Your task to perform on an android device: Open the calendar and show me this week's events Image 0: 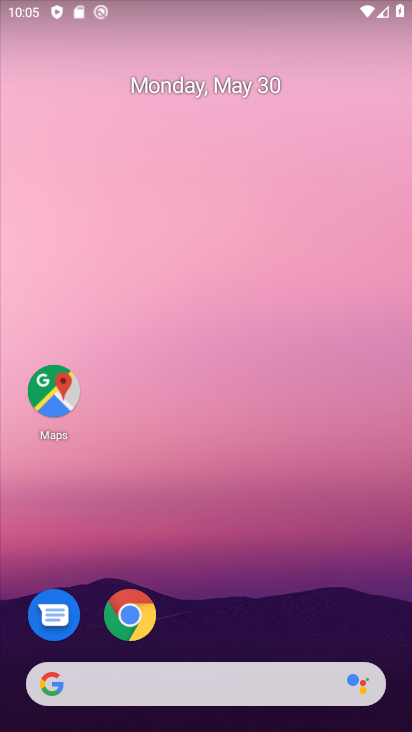
Step 0: drag from (198, 728) to (203, 126)
Your task to perform on an android device: Open the calendar and show me this week's events Image 1: 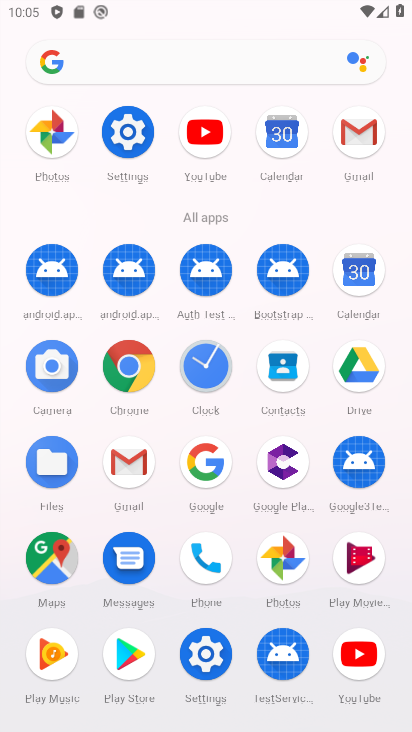
Step 1: click (364, 274)
Your task to perform on an android device: Open the calendar and show me this week's events Image 2: 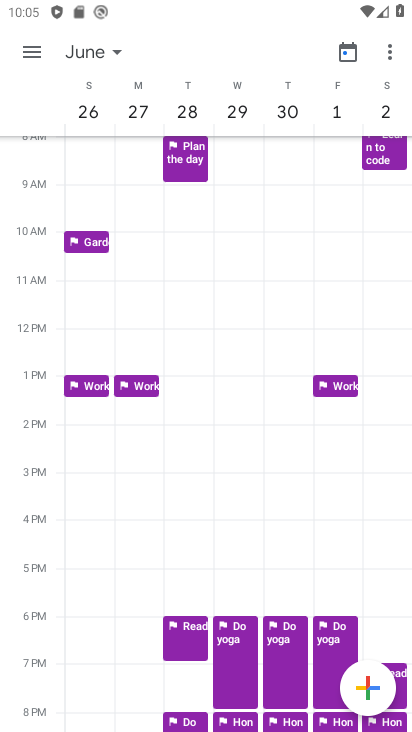
Step 2: click (108, 57)
Your task to perform on an android device: Open the calendar and show me this week's events Image 3: 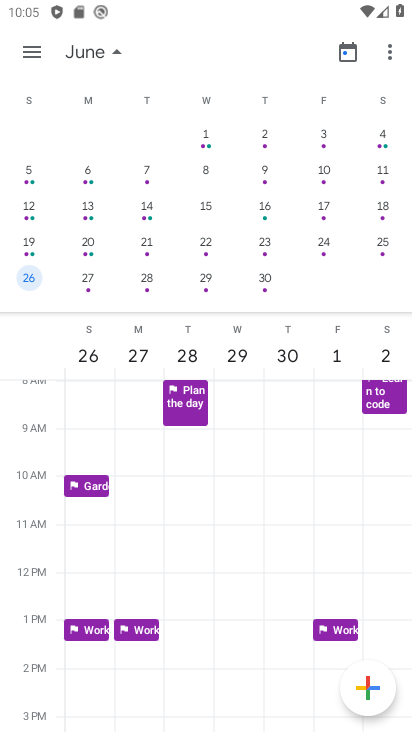
Step 3: drag from (60, 216) to (382, 208)
Your task to perform on an android device: Open the calendar and show me this week's events Image 4: 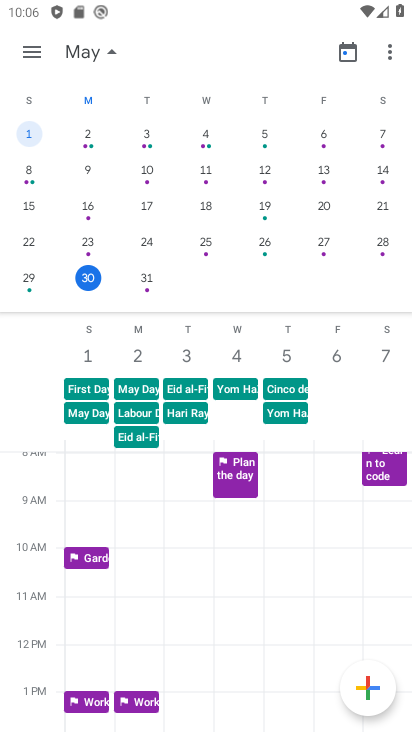
Step 4: click (35, 52)
Your task to perform on an android device: Open the calendar and show me this week's events Image 5: 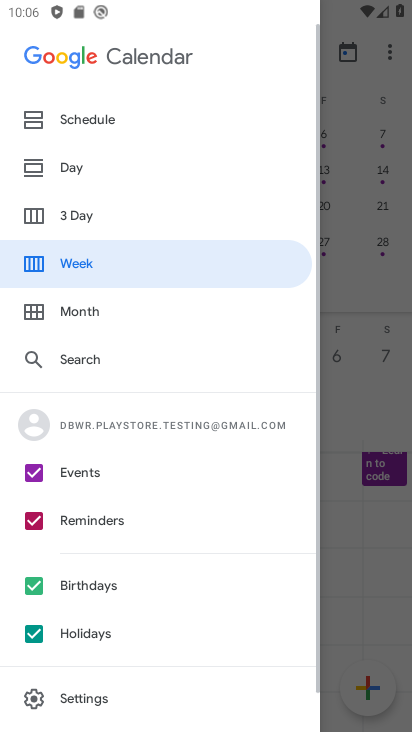
Step 5: click (78, 264)
Your task to perform on an android device: Open the calendar and show me this week's events Image 6: 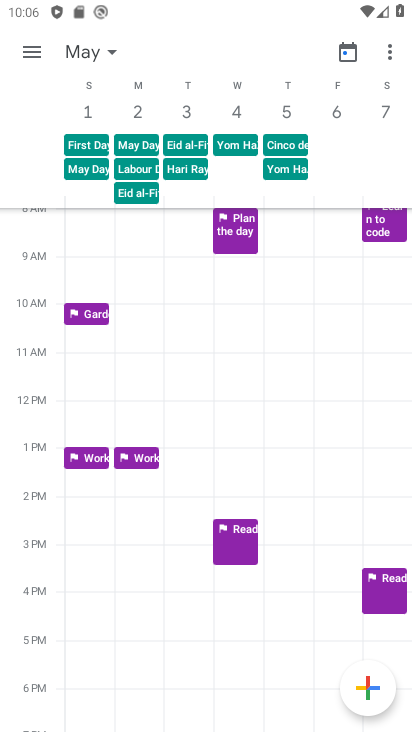
Step 6: drag from (362, 103) to (180, 84)
Your task to perform on an android device: Open the calendar and show me this week's events Image 7: 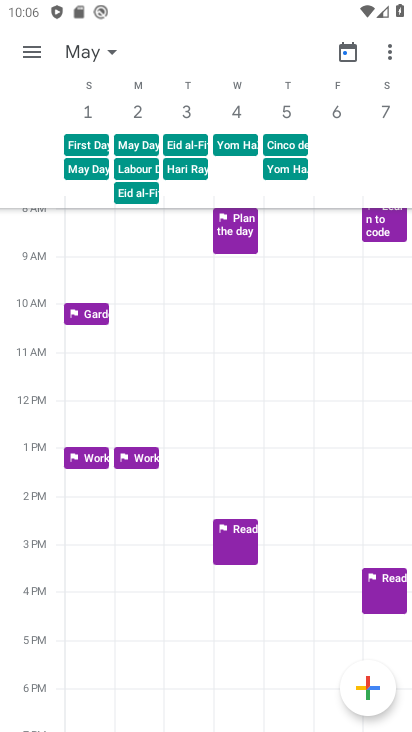
Step 7: click (110, 53)
Your task to perform on an android device: Open the calendar and show me this week's events Image 8: 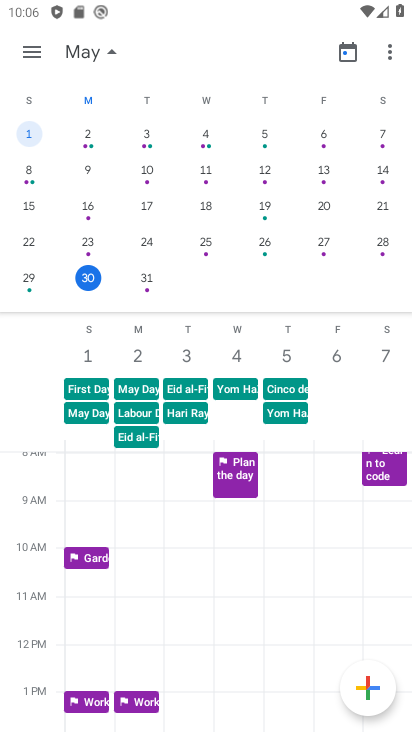
Step 8: click (88, 275)
Your task to perform on an android device: Open the calendar and show me this week's events Image 9: 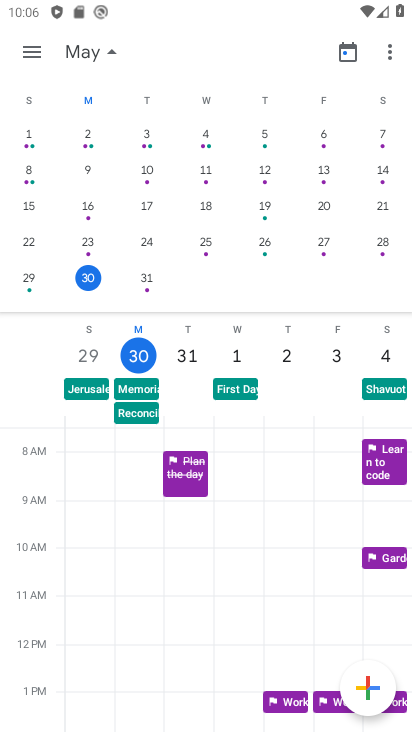
Step 9: task complete